Your task to perform on an android device: Open accessibility settings Image 0: 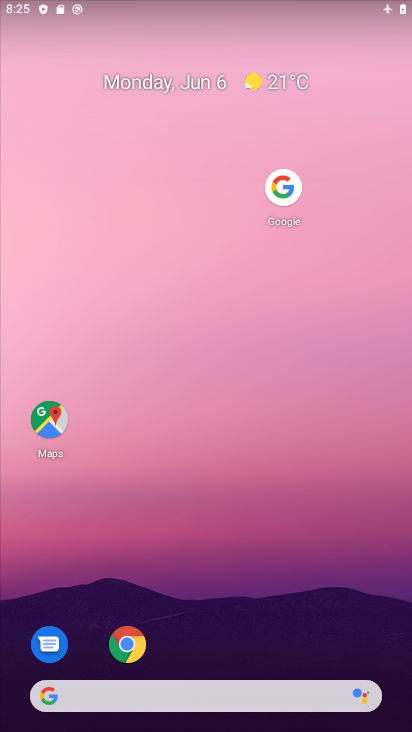
Step 0: drag from (230, 679) to (201, 145)
Your task to perform on an android device: Open accessibility settings Image 1: 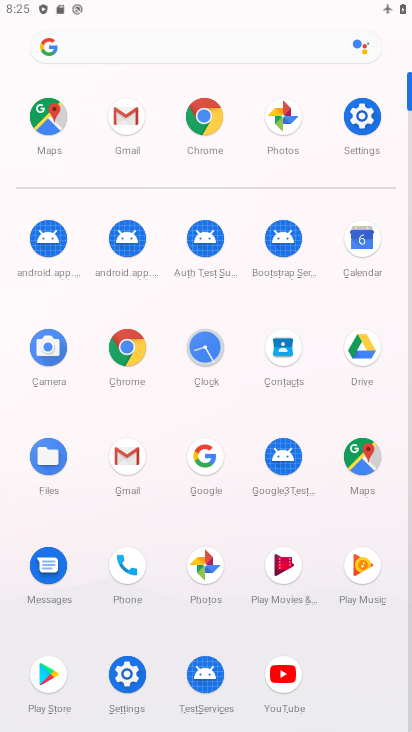
Step 1: click (359, 106)
Your task to perform on an android device: Open accessibility settings Image 2: 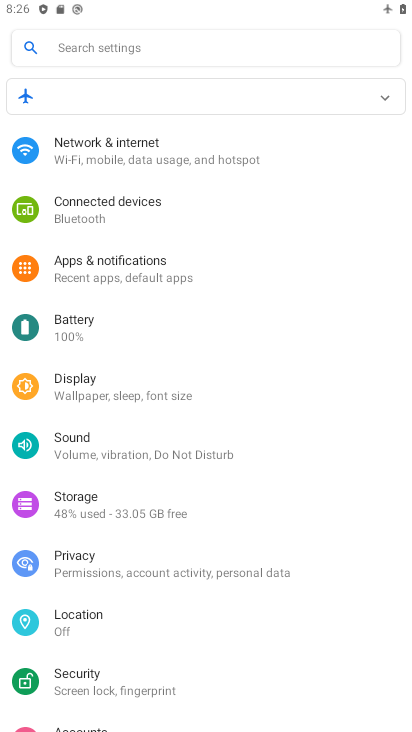
Step 2: drag from (194, 562) to (160, 235)
Your task to perform on an android device: Open accessibility settings Image 3: 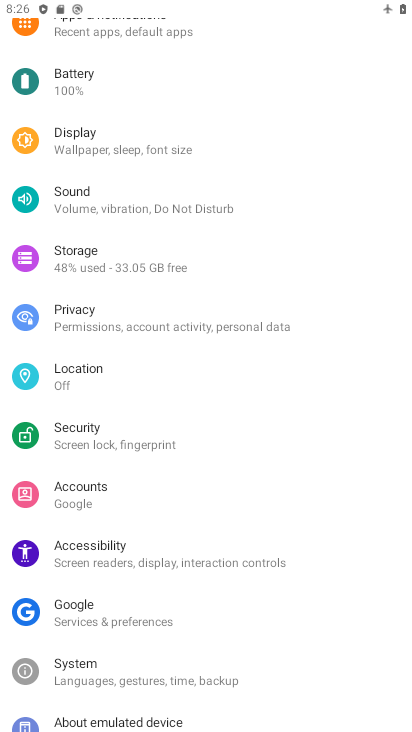
Step 3: click (80, 565)
Your task to perform on an android device: Open accessibility settings Image 4: 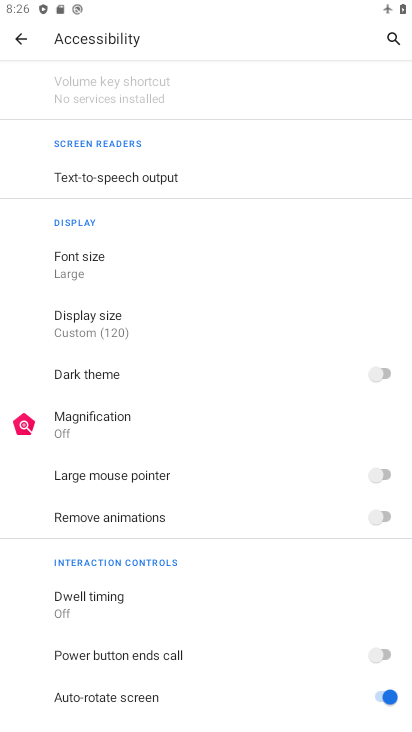
Step 4: task complete